Your task to perform on an android device: delete browsing data in the chrome app Image 0: 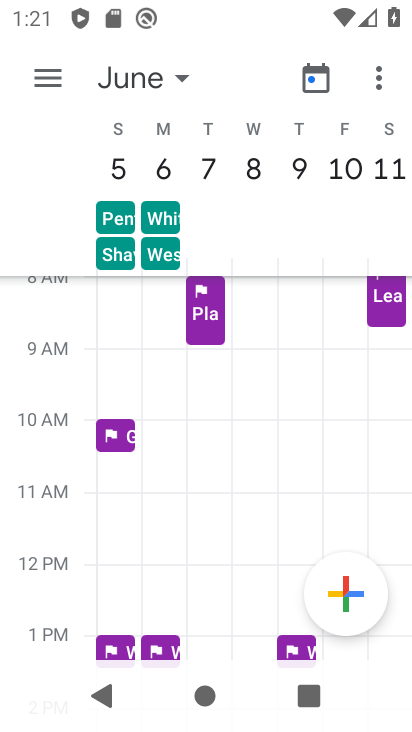
Step 0: press home button
Your task to perform on an android device: delete browsing data in the chrome app Image 1: 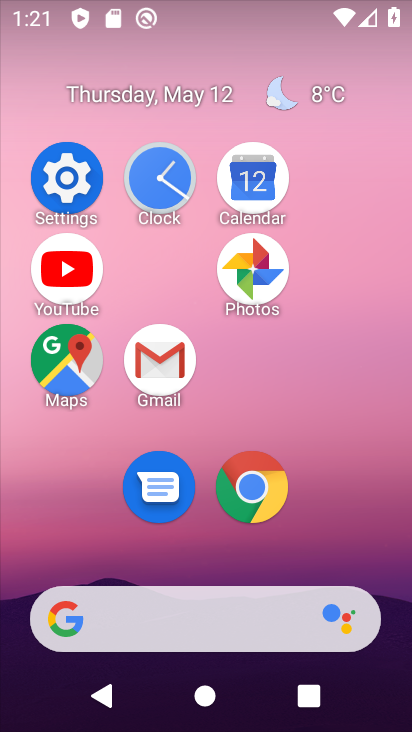
Step 1: click (273, 498)
Your task to perform on an android device: delete browsing data in the chrome app Image 2: 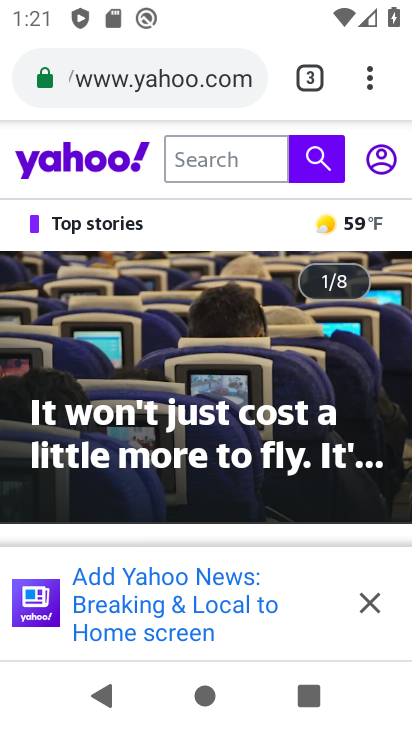
Step 2: click (372, 64)
Your task to perform on an android device: delete browsing data in the chrome app Image 3: 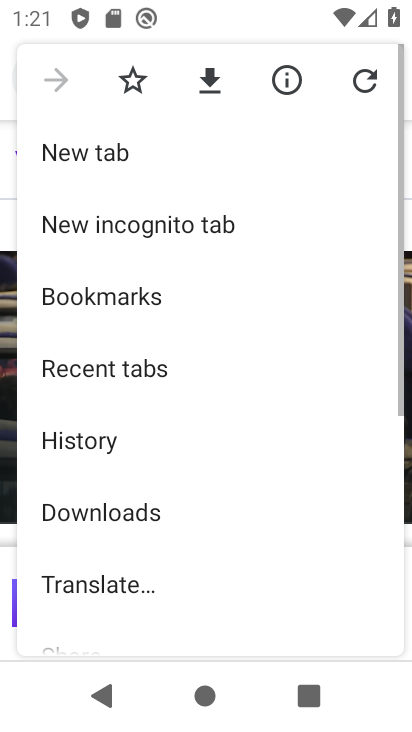
Step 3: drag from (228, 554) to (233, 115)
Your task to perform on an android device: delete browsing data in the chrome app Image 4: 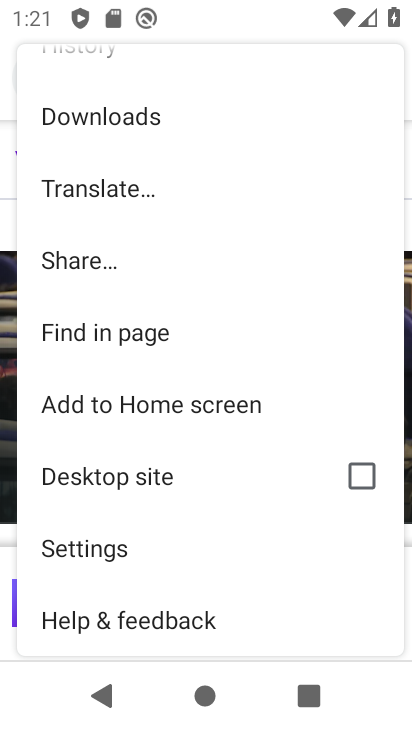
Step 4: click (150, 567)
Your task to perform on an android device: delete browsing data in the chrome app Image 5: 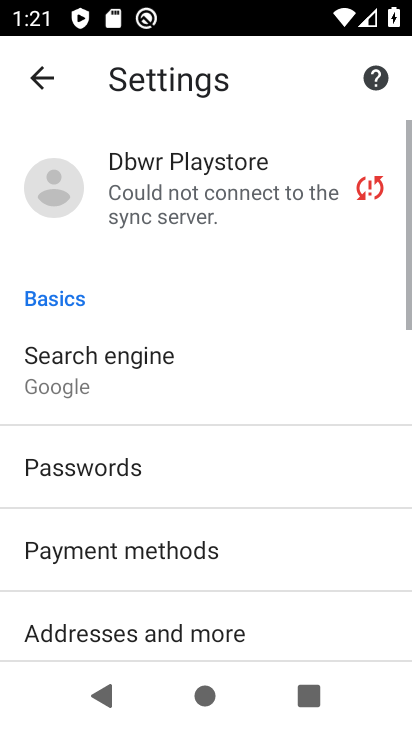
Step 5: drag from (150, 566) to (183, 129)
Your task to perform on an android device: delete browsing data in the chrome app Image 6: 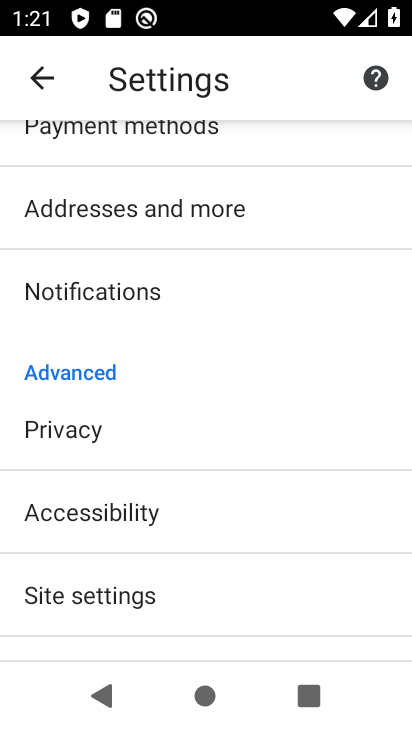
Step 6: click (130, 452)
Your task to perform on an android device: delete browsing data in the chrome app Image 7: 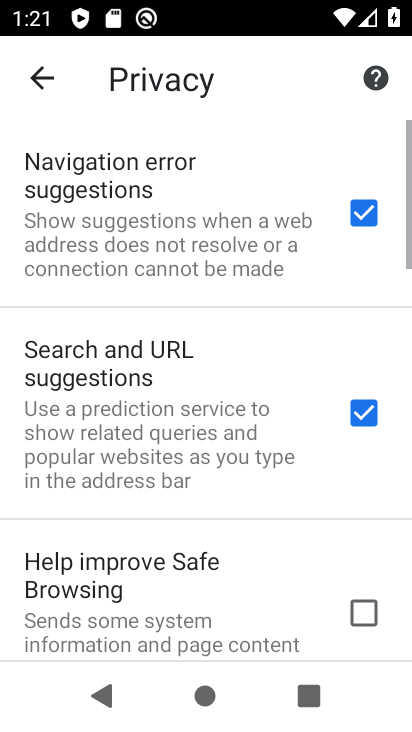
Step 7: drag from (179, 578) to (211, 146)
Your task to perform on an android device: delete browsing data in the chrome app Image 8: 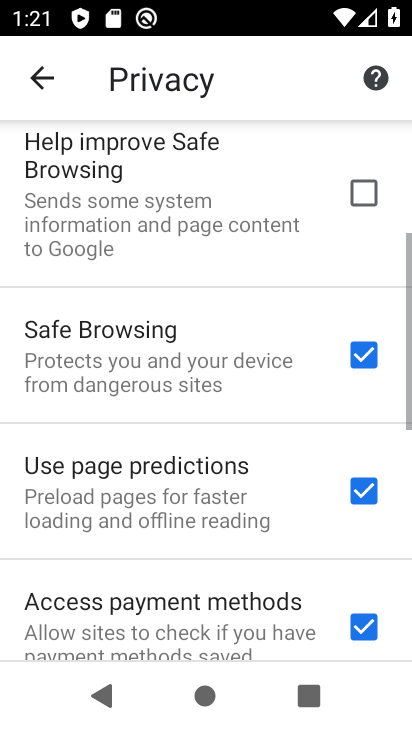
Step 8: drag from (269, 609) to (257, 101)
Your task to perform on an android device: delete browsing data in the chrome app Image 9: 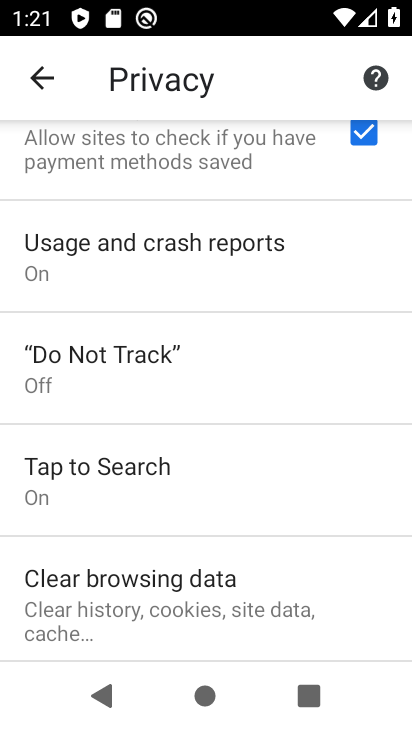
Step 9: drag from (190, 640) to (195, 292)
Your task to perform on an android device: delete browsing data in the chrome app Image 10: 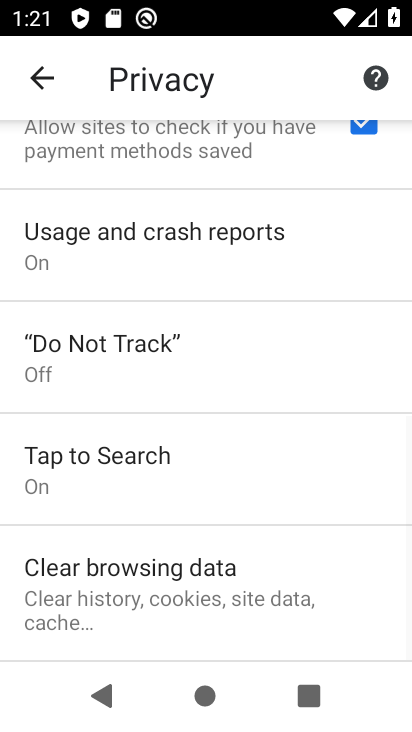
Step 10: click (214, 552)
Your task to perform on an android device: delete browsing data in the chrome app Image 11: 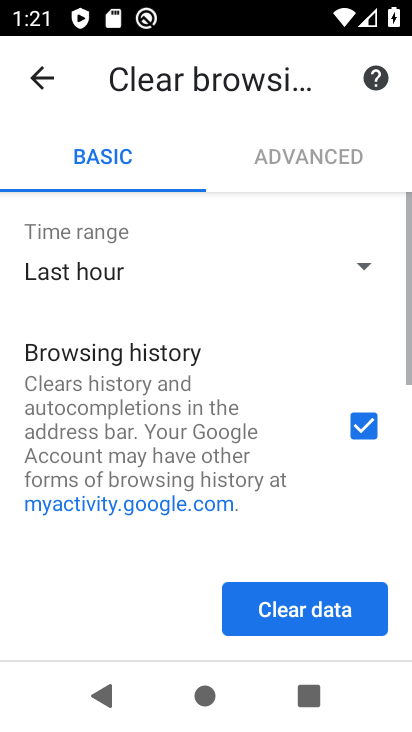
Step 11: drag from (264, 522) to (243, 197)
Your task to perform on an android device: delete browsing data in the chrome app Image 12: 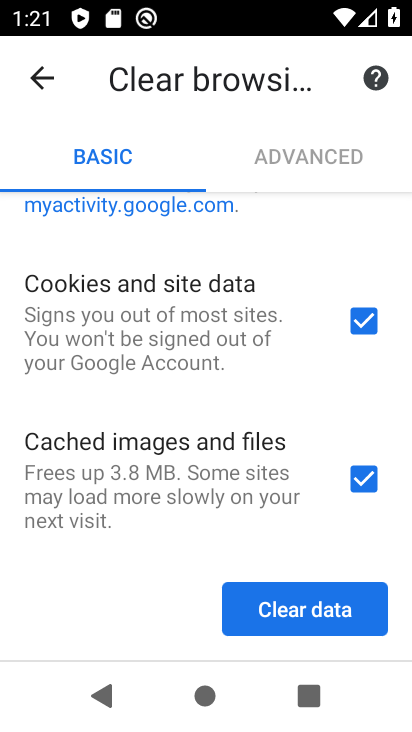
Step 12: click (266, 598)
Your task to perform on an android device: delete browsing data in the chrome app Image 13: 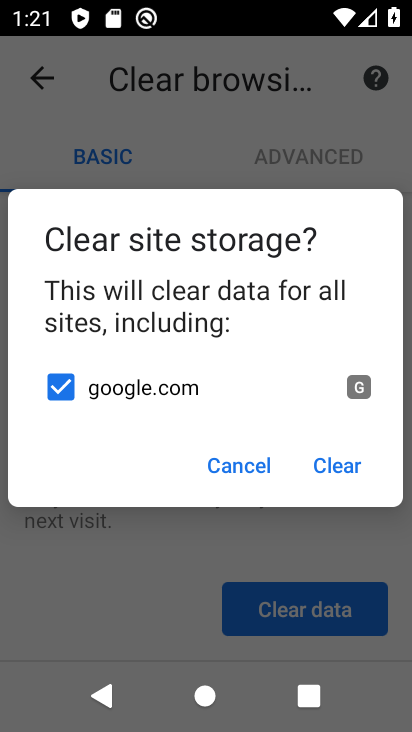
Step 13: click (350, 464)
Your task to perform on an android device: delete browsing data in the chrome app Image 14: 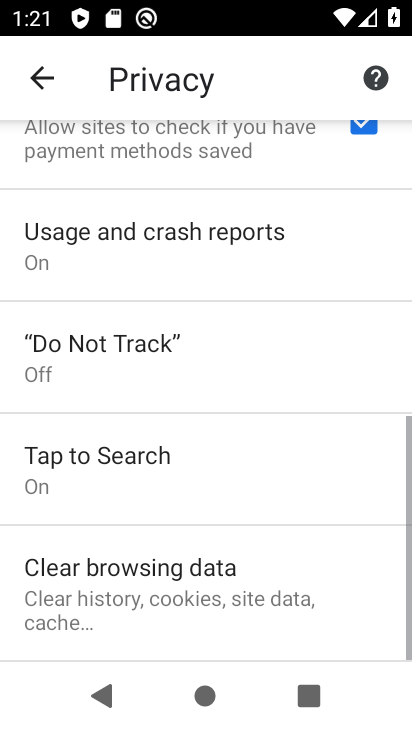
Step 14: task complete